Your task to perform on an android device: Go to settings Image 0: 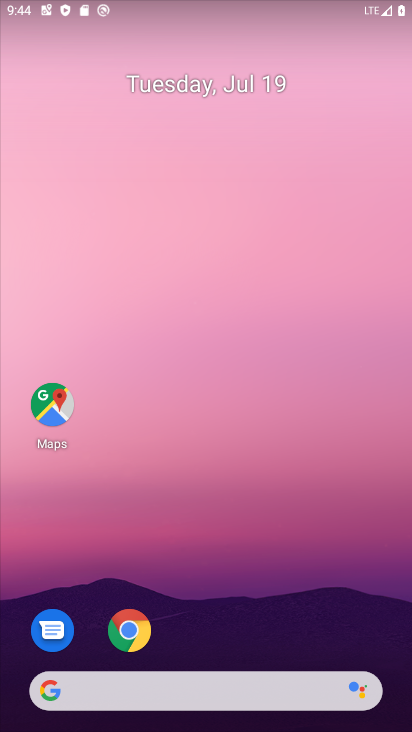
Step 0: drag from (185, 571) to (174, 66)
Your task to perform on an android device: Go to settings Image 1: 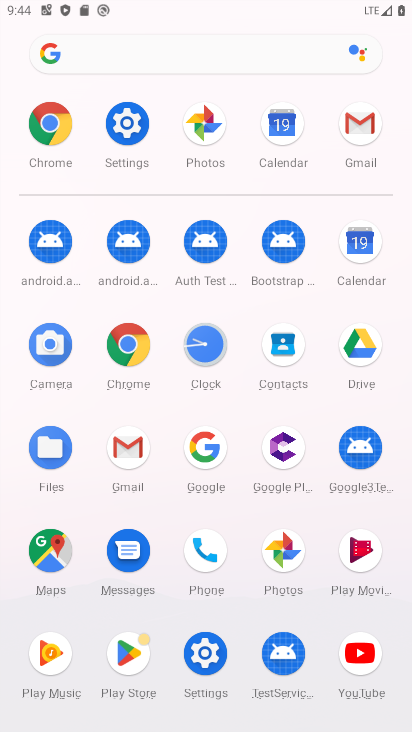
Step 1: click (129, 120)
Your task to perform on an android device: Go to settings Image 2: 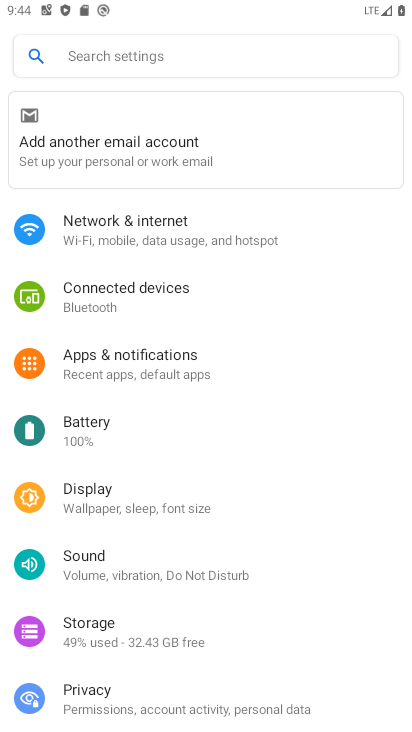
Step 2: task complete